Your task to perform on an android device: change alarm snooze length Image 0: 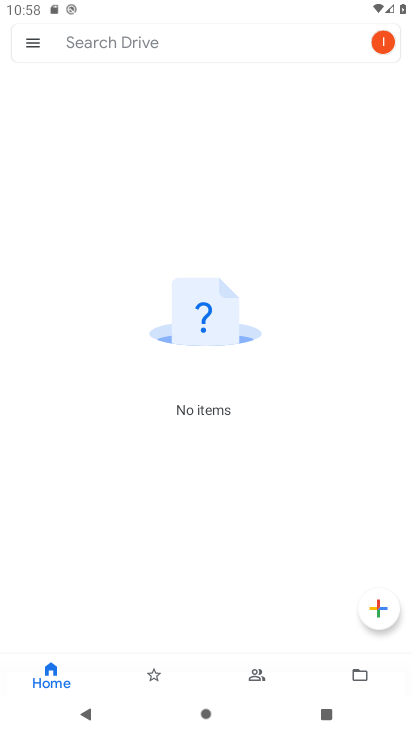
Step 0: press home button
Your task to perform on an android device: change alarm snooze length Image 1: 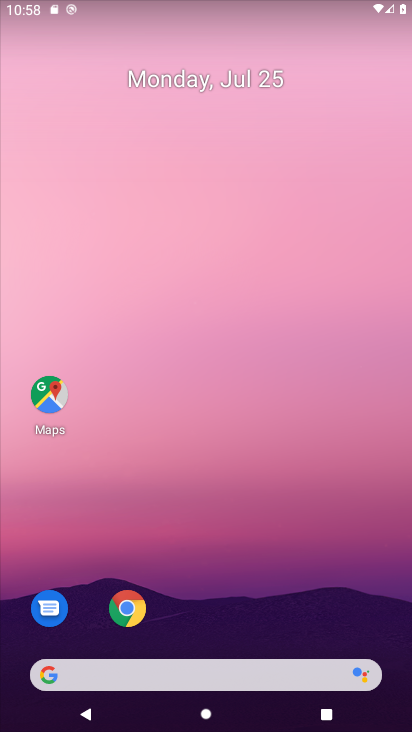
Step 1: drag from (222, 636) to (251, 177)
Your task to perform on an android device: change alarm snooze length Image 2: 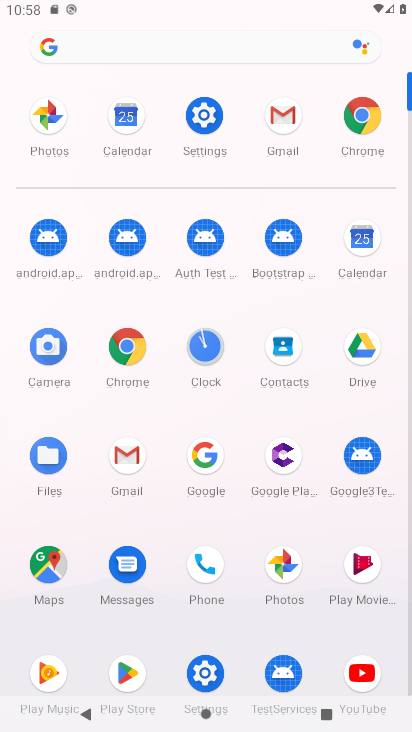
Step 2: click (207, 344)
Your task to perform on an android device: change alarm snooze length Image 3: 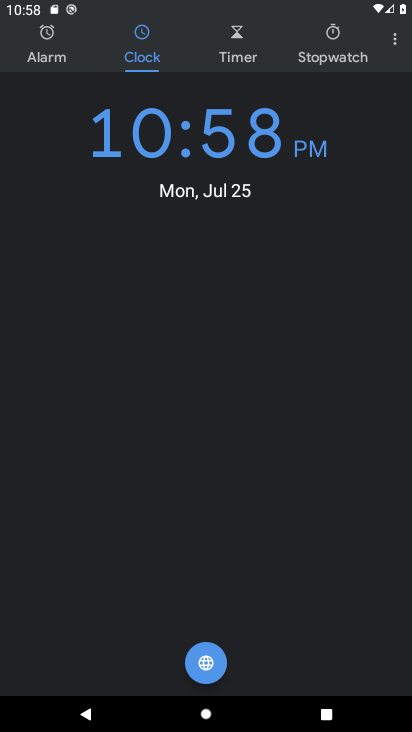
Step 3: click (401, 36)
Your task to perform on an android device: change alarm snooze length Image 4: 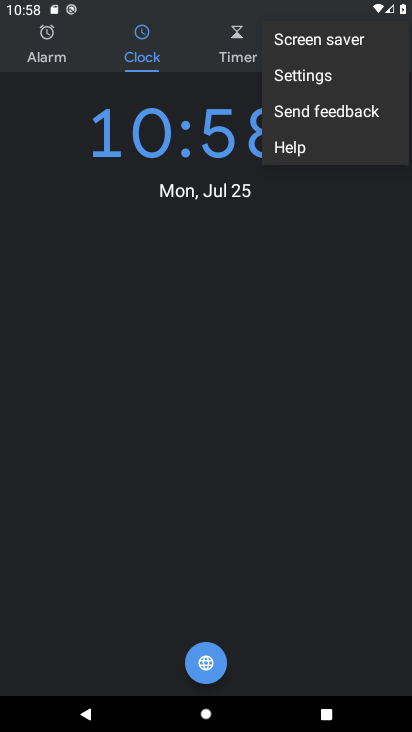
Step 4: click (310, 62)
Your task to perform on an android device: change alarm snooze length Image 5: 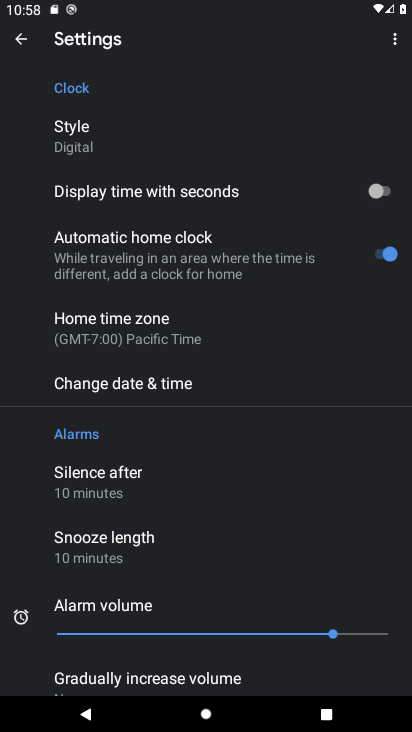
Step 5: click (121, 542)
Your task to perform on an android device: change alarm snooze length Image 6: 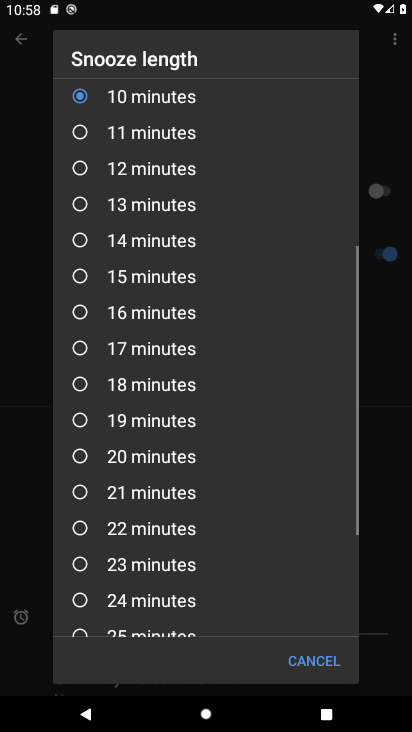
Step 6: click (130, 595)
Your task to perform on an android device: change alarm snooze length Image 7: 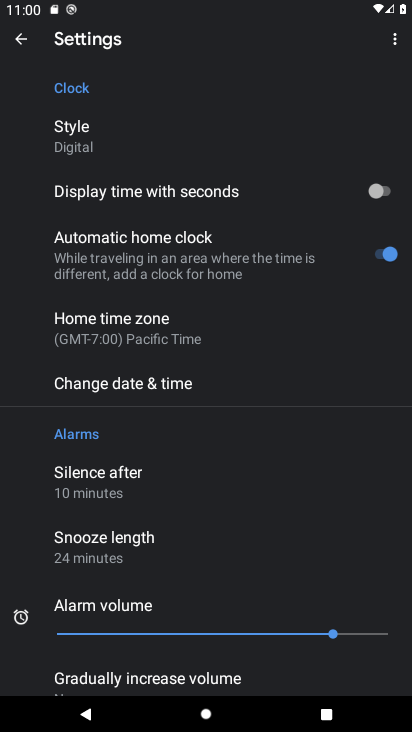
Step 7: task complete